Your task to perform on an android device: Go to privacy settings Image 0: 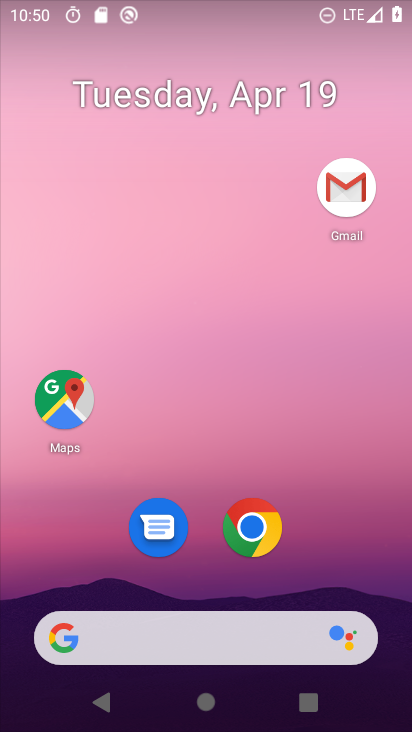
Step 0: drag from (381, 410) to (365, 57)
Your task to perform on an android device: Go to privacy settings Image 1: 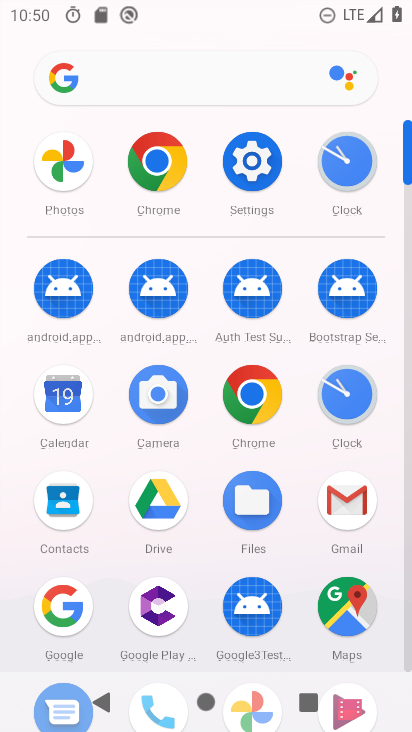
Step 1: click (251, 166)
Your task to perform on an android device: Go to privacy settings Image 2: 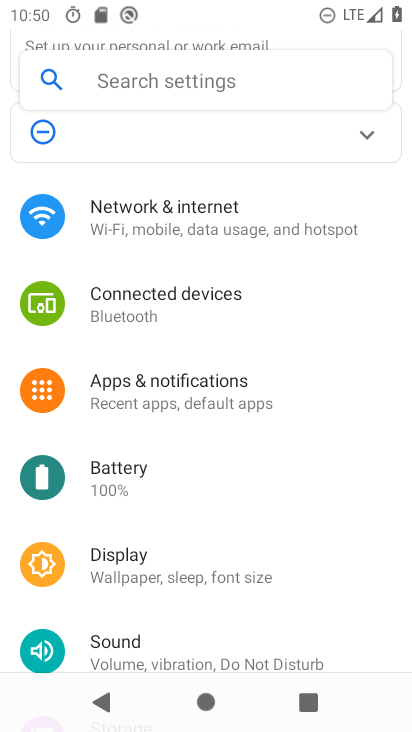
Step 2: drag from (312, 597) to (343, 270)
Your task to perform on an android device: Go to privacy settings Image 3: 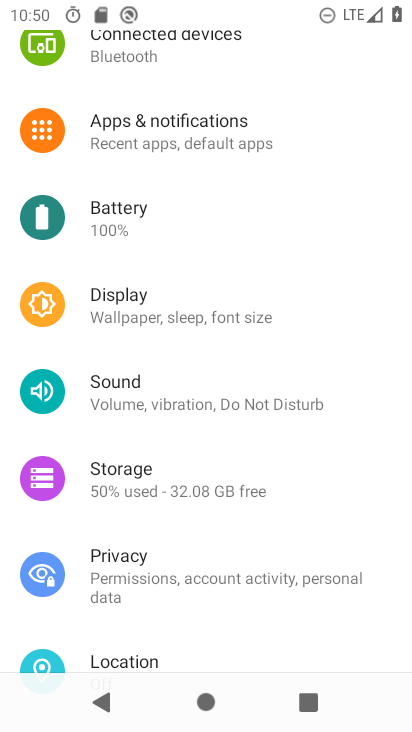
Step 3: click (221, 576)
Your task to perform on an android device: Go to privacy settings Image 4: 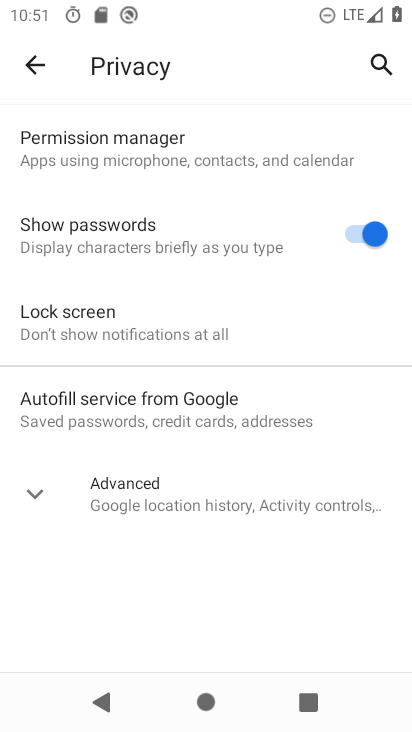
Step 4: task complete